Your task to perform on an android device: turn notification dots off Image 0: 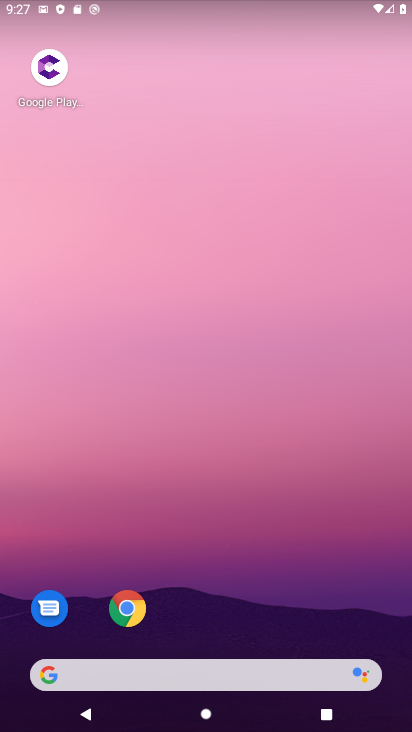
Step 0: drag from (252, 590) to (201, 71)
Your task to perform on an android device: turn notification dots off Image 1: 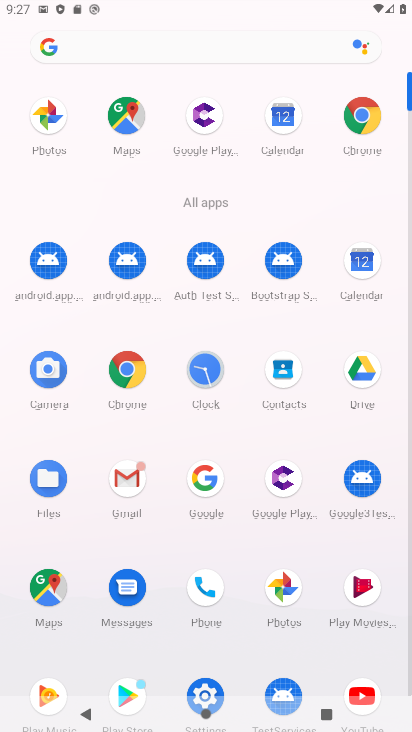
Step 1: click (207, 688)
Your task to perform on an android device: turn notification dots off Image 2: 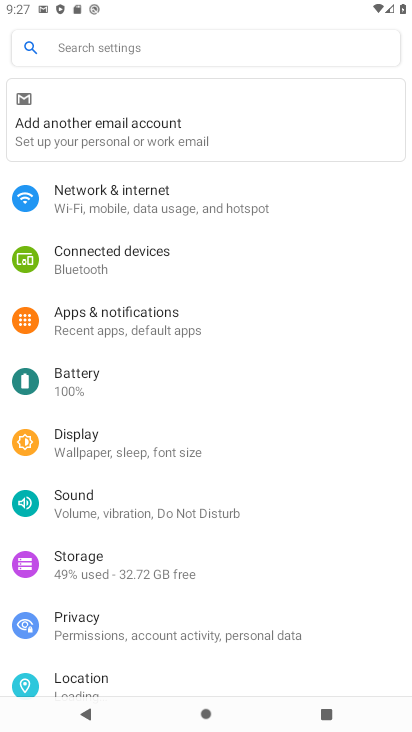
Step 2: click (106, 315)
Your task to perform on an android device: turn notification dots off Image 3: 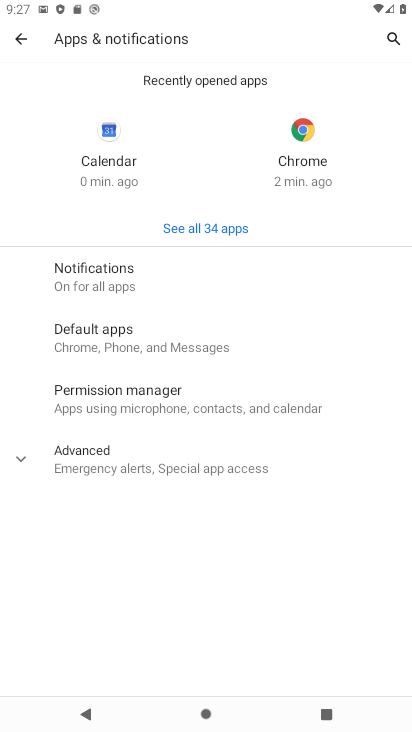
Step 3: click (89, 270)
Your task to perform on an android device: turn notification dots off Image 4: 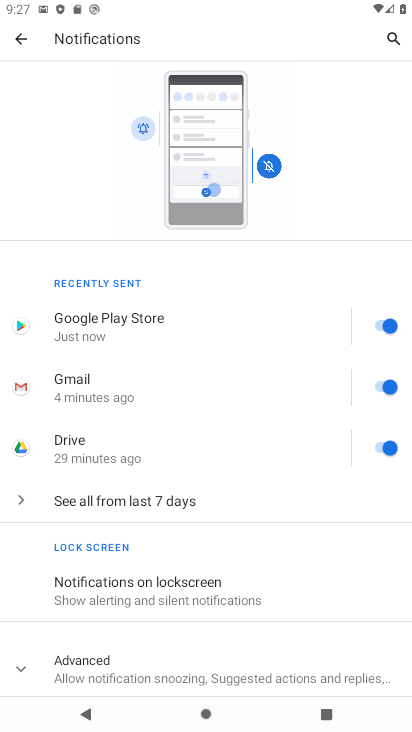
Step 4: click (28, 664)
Your task to perform on an android device: turn notification dots off Image 5: 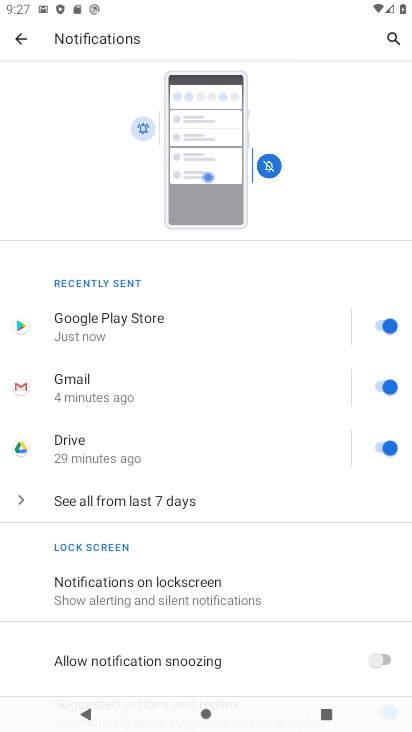
Step 5: drag from (257, 608) to (223, 376)
Your task to perform on an android device: turn notification dots off Image 6: 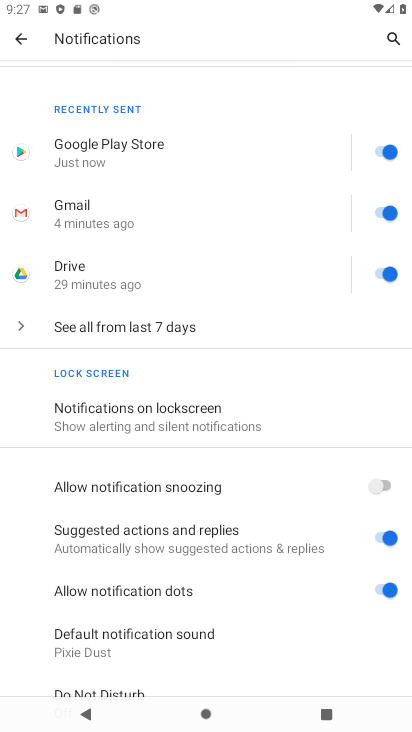
Step 6: click (383, 593)
Your task to perform on an android device: turn notification dots off Image 7: 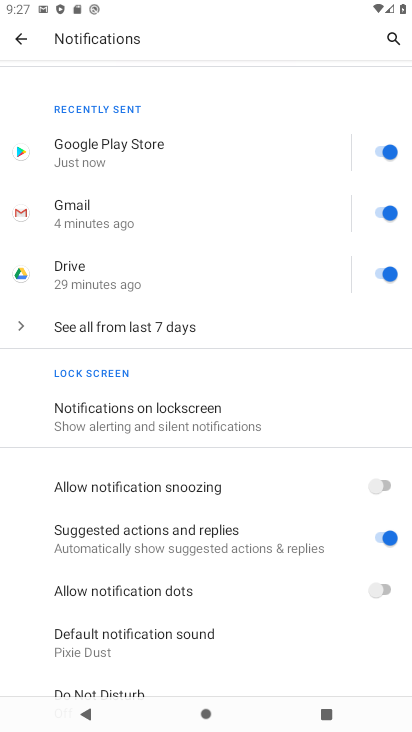
Step 7: task complete